Your task to perform on an android device: choose inbox layout in the gmail app Image 0: 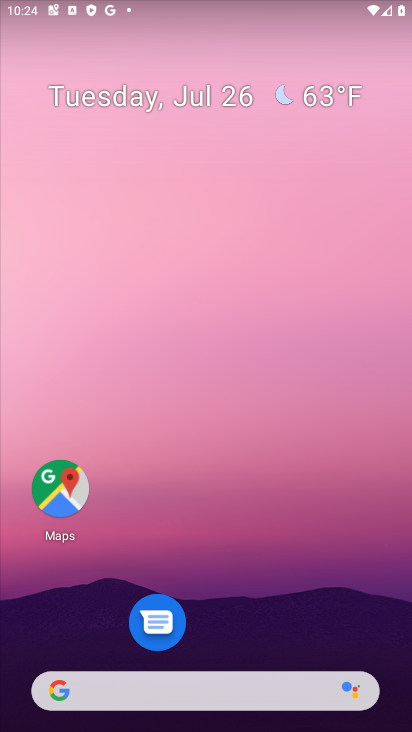
Step 0: drag from (331, 627) to (116, 17)
Your task to perform on an android device: choose inbox layout in the gmail app Image 1: 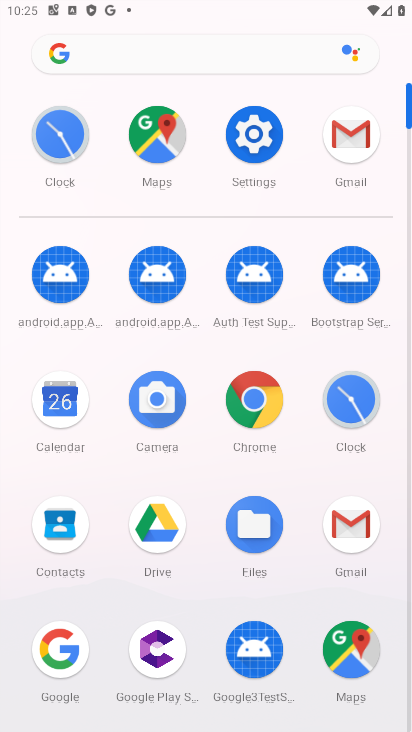
Step 1: click (345, 143)
Your task to perform on an android device: choose inbox layout in the gmail app Image 2: 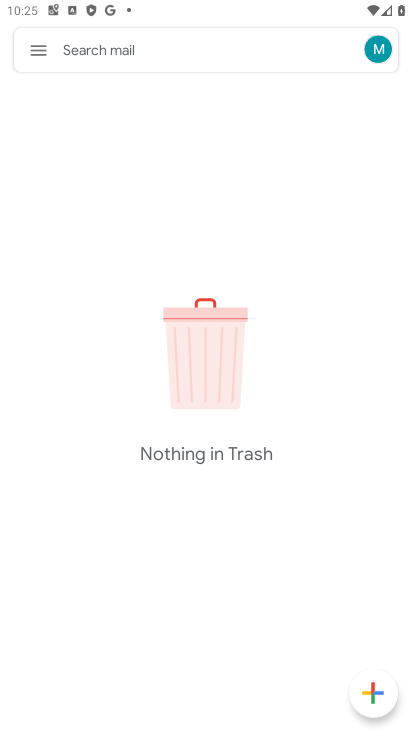
Step 2: click (42, 48)
Your task to perform on an android device: choose inbox layout in the gmail app Image 3: 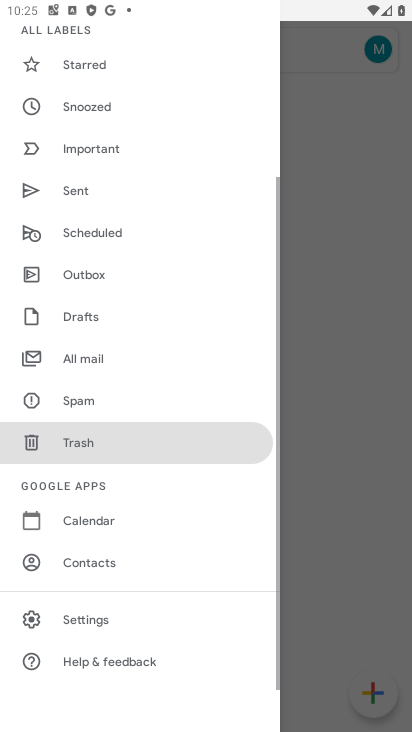
Step 3: drag from (111, 490) to (220, 13)
Your task to perform on an android device: choose inbox layout in the gmail app Image 4: 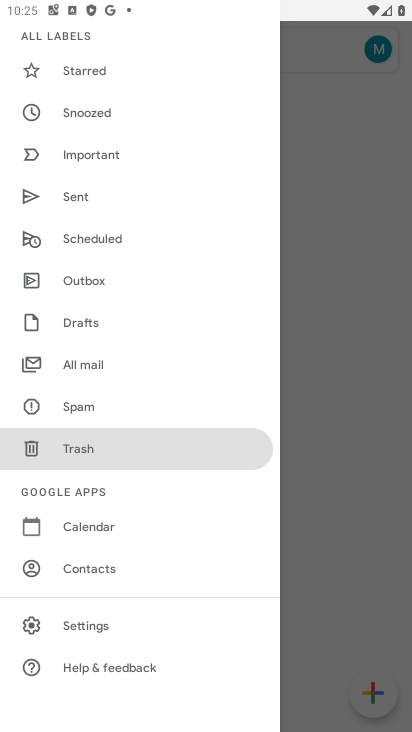
Step 4: click (69, 620)
Your task to perform on an android device: choose inbox layout in the gmail app Image 5: 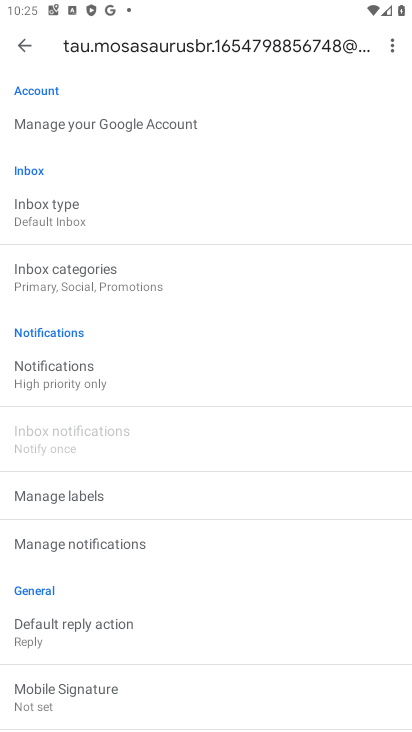
Step 5: click (69, 209)
Your task to perform on an android device: choose inbox layout in the gmail app Image 6: 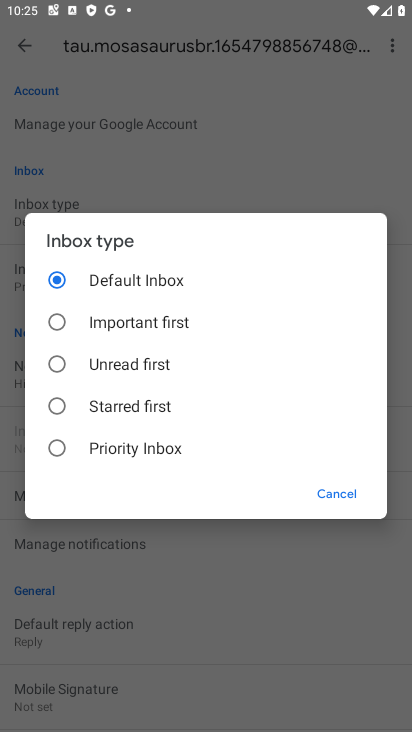
Step 6: click (115, 367)
Your task to perform on an android device: choose inbox layout in the gmail app Image 7: 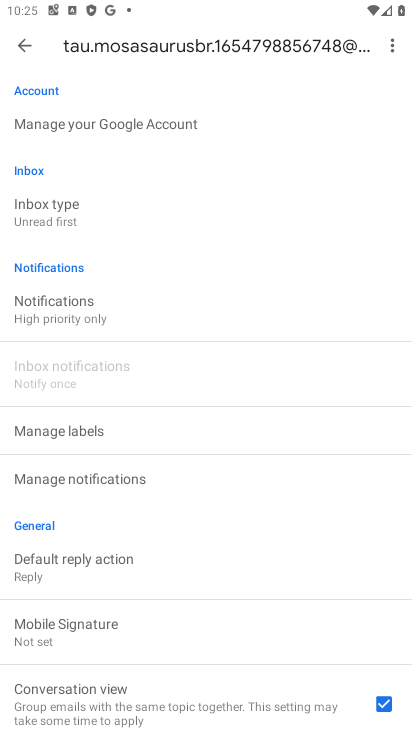
Step 7: task complete